Your task to perform on an android device: turn off priority inbox in the gmail app Image 0: 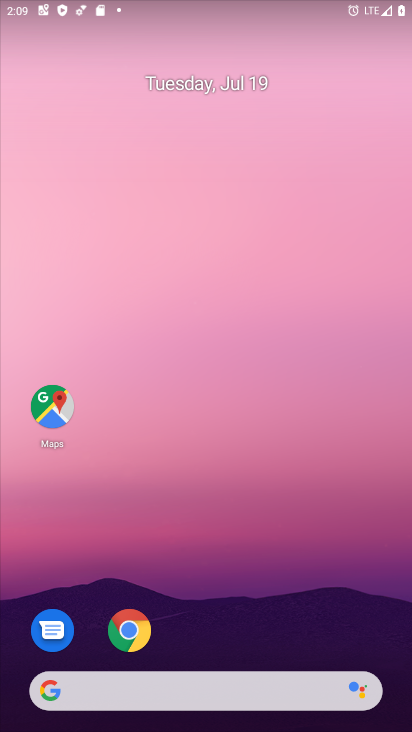
Step 0: press home button
Your task to perform on an android device: turn off priority inbox in the gmail app Image 1: 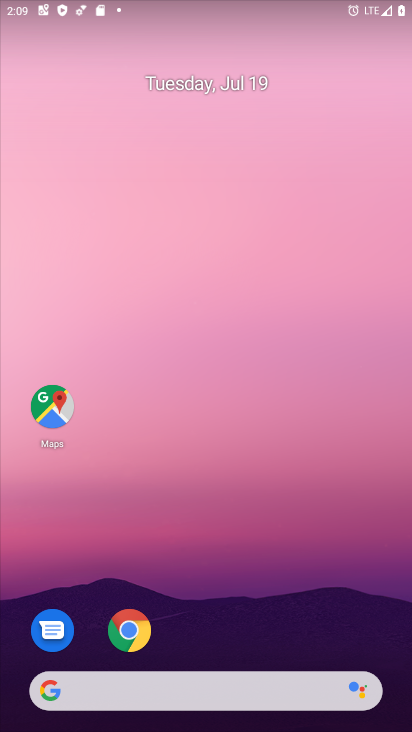
Step 1: drag from (226, 648) to (244, 209)
Your task to perform on an android device: turn off priority inbox in the gmail app Image 2: 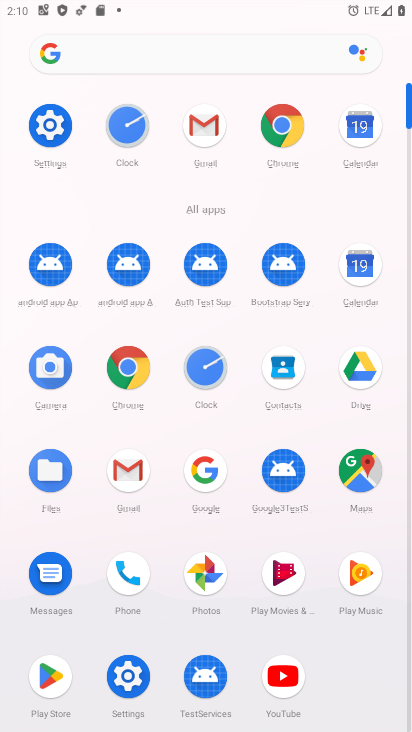
Step 2: click (118, 461)
Your task to perform on an android device: turn off priority inbox in the gmail app Image 3: 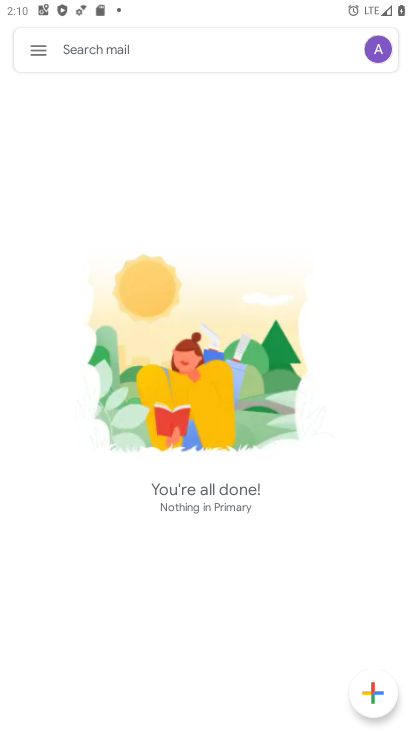
Step 3: click (34, 44)
Your task to perform on an android device: turn off priority inbox in the gmail app Image 4: 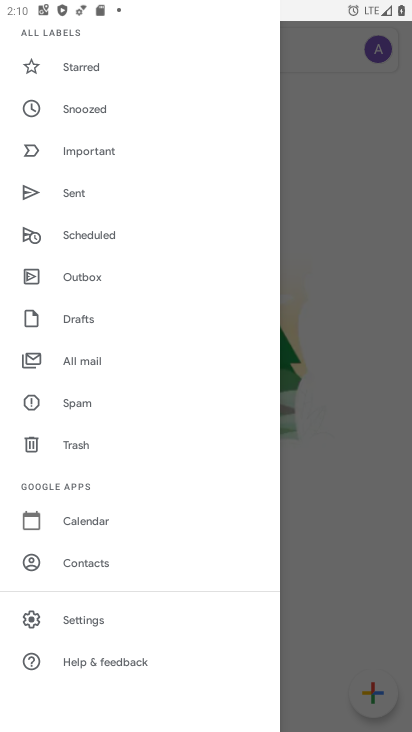
Step 4: click (118, 615)
Your task to perform on an android device: turn off priority inbox in the gmail app Image 5: 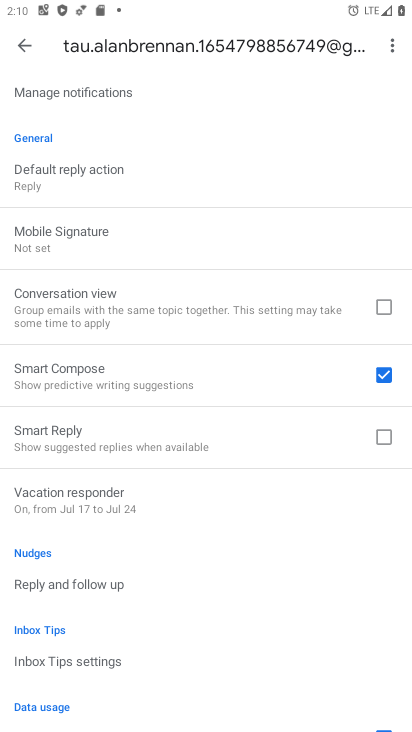
Step 5: drag from (96, 115) to (128, 512)
Your task to perform on an android device: turn off priority inbox in the gmail app Image 6: 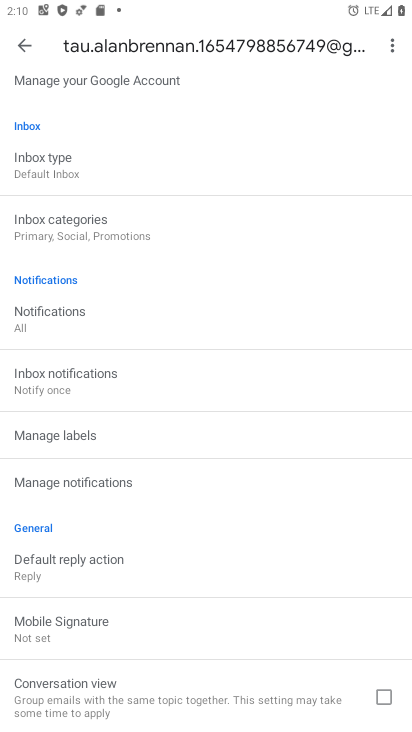
Step 6: click (106, 161)
Your task to perform on an android device: turn off priority inbox in the gmail app Image 7: 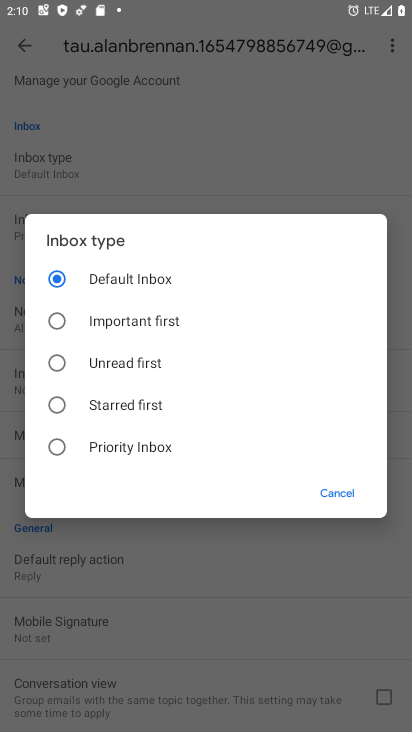
Step 7: click (52, 404)
Your task to perform on an android device: turn off priority inbox in the gmail app Image 8: 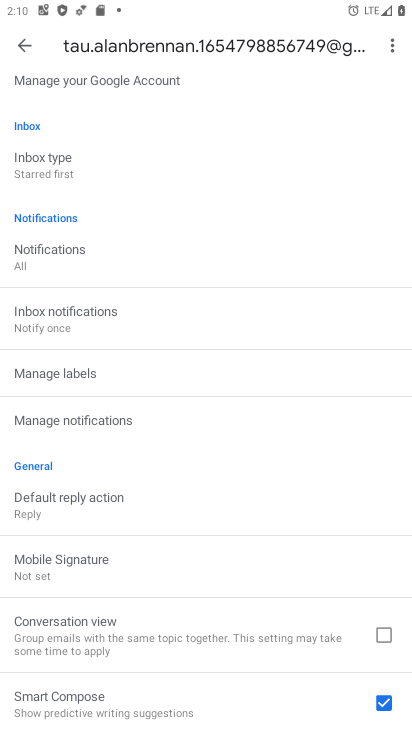
Step 8: task complete